Your task to perform on an android device: turn on bluetooth scan Image 0: 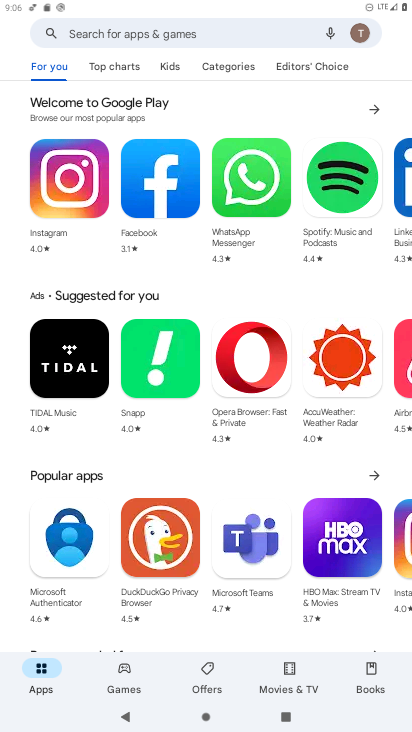
Step 0: drag from (166, 6) to (217, 623)
Your task to perform on an android device: turn on bluetooth scan Image 1: 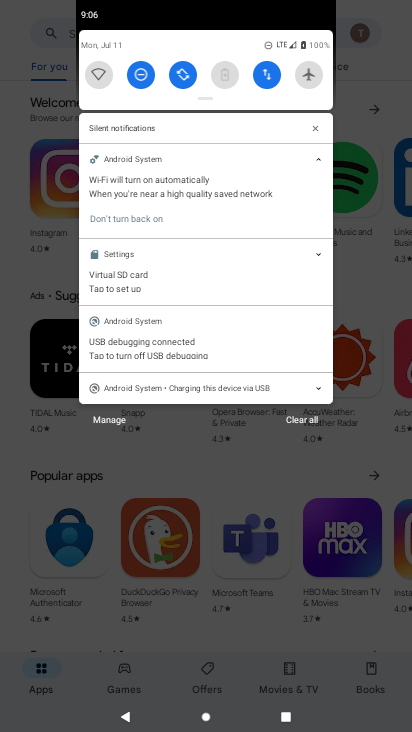
Step 1: drag from (177, 40) to (184, 589)
Your task to perform on an android device: turn on bluetooth scan Image 2: 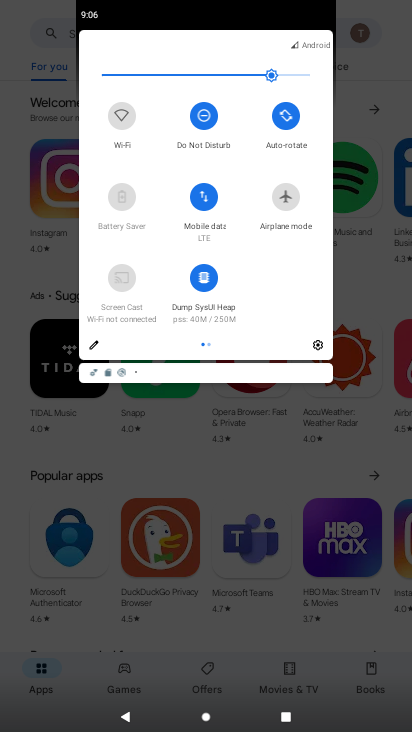
Step 2: click (320, 345)
Your task to perform on an android device: turn on bluetooth scan Image 3: 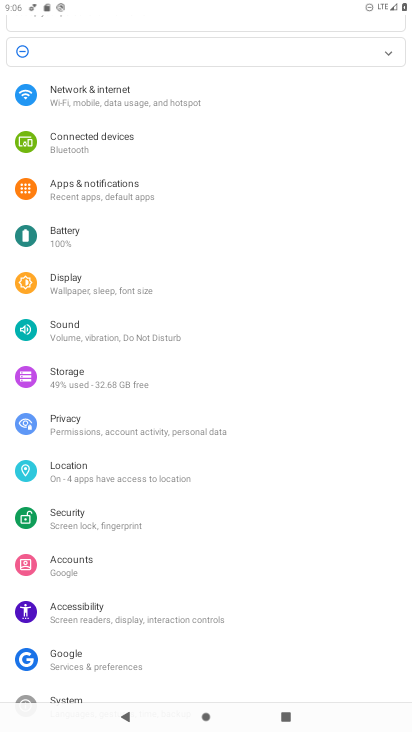
Step 3: click (103, 486)
Your task to perform on an android device: turn on bluetooth scan Image 4: 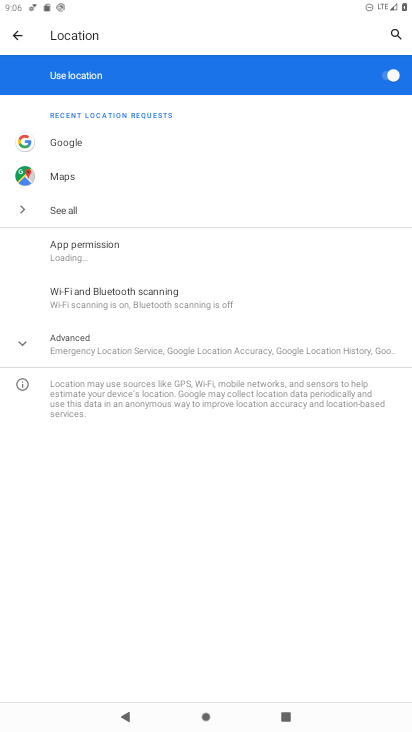
Step 4: click (175, 302)
Your task to perform on an android device: turn on bluetooth scan Image 5: 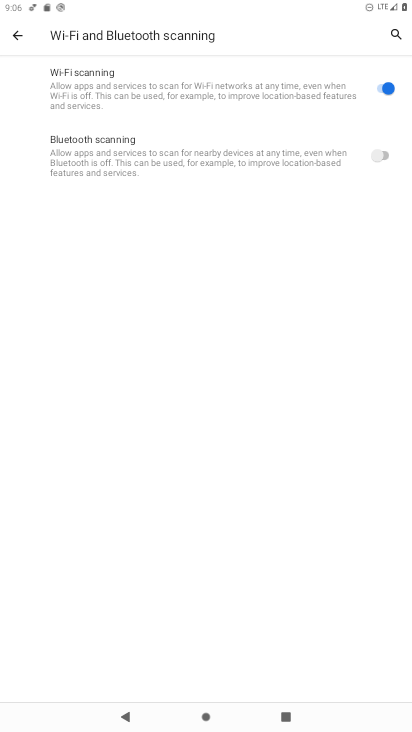
Step 5: click (385, 157)
Your task to perform on an android device: turn on bluetooth scan Image 6: 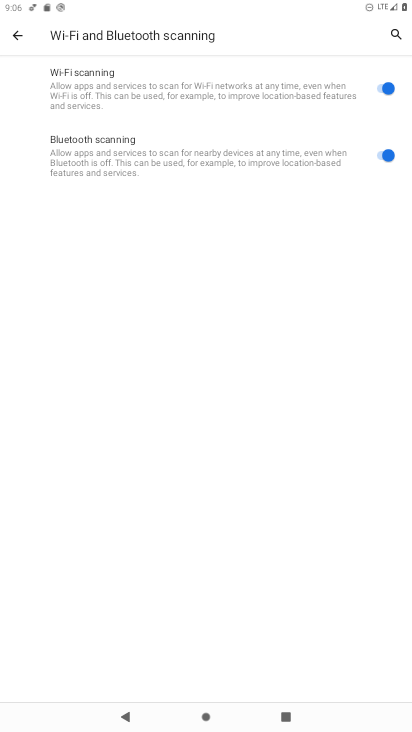
Step 6: task complete